Your task to perform on an android device: Go to wifi settings Image 0: 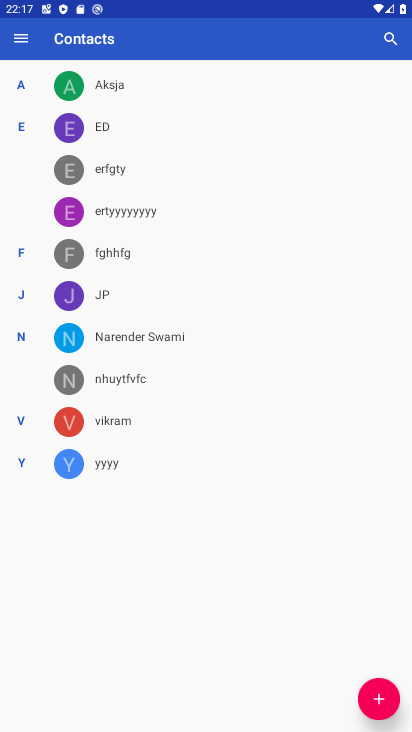
Step 0: press home button
Your task to perform on an android device: Go to wifi settings Image 1: 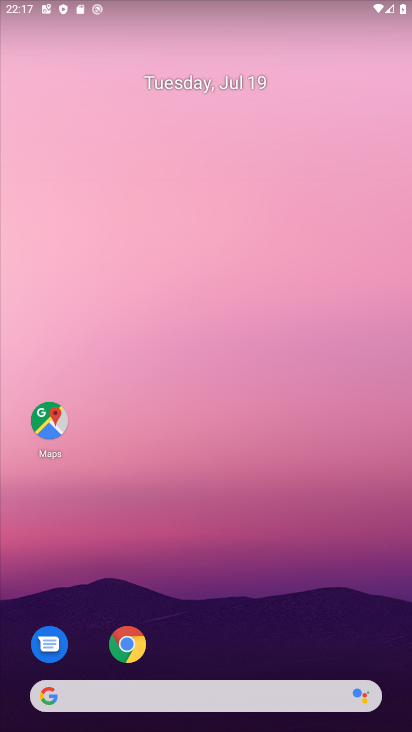
Step 1: drag from (228, 727) to (217, 227)
Your task to perform on an android device: Go to wifi settings Image 2: 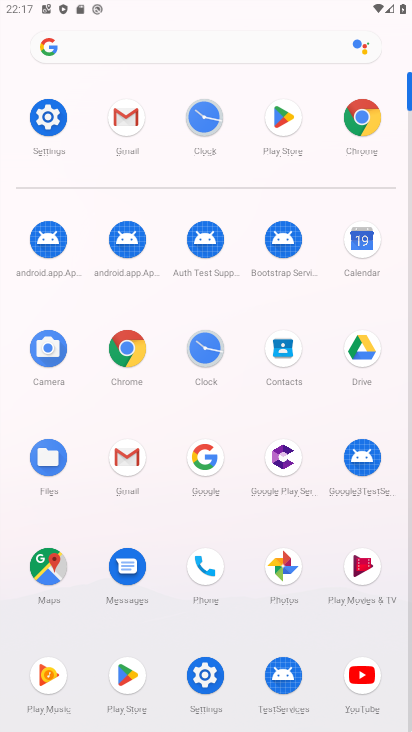
Step 2: click (51, 112)
Your task to perform on an android device: Go to wifi settings Image 3: 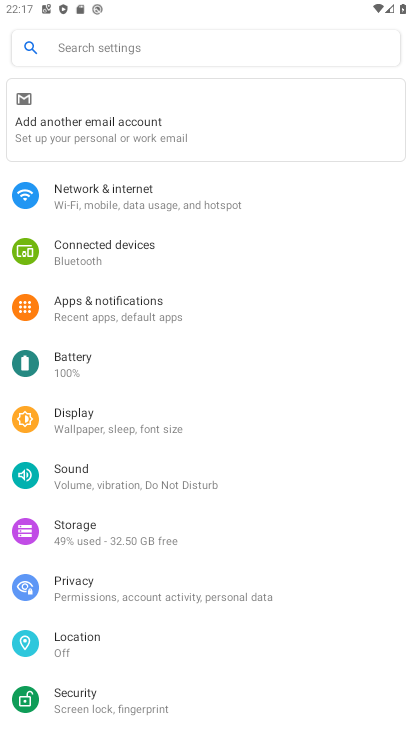
Step 3: click (103, 200)
Your task to perform on an android device: Go to wifi settings Image 4: 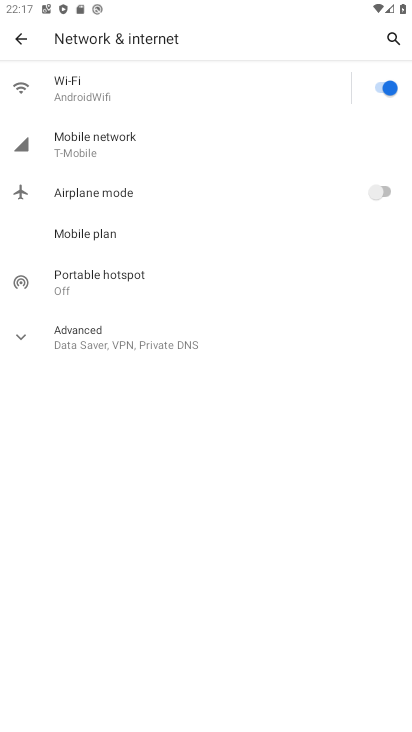
Step 4: click (95, 92)
Your task to perform on an android device: Go to wifi settings Image 5: 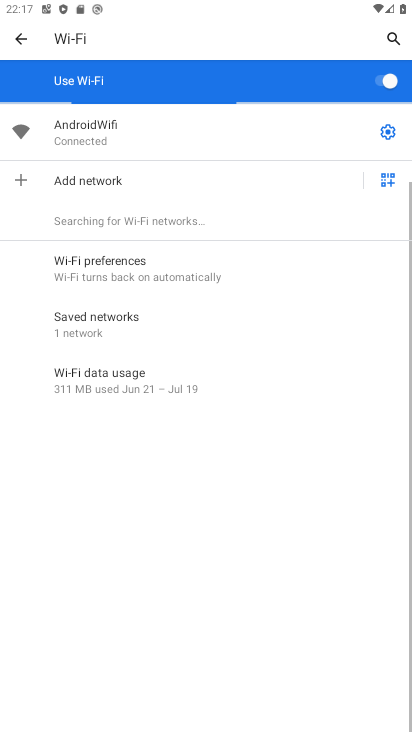
Step 5: task complete